Your task to perform on an android device: Search for Mexican restaurants on Maps Image 0: 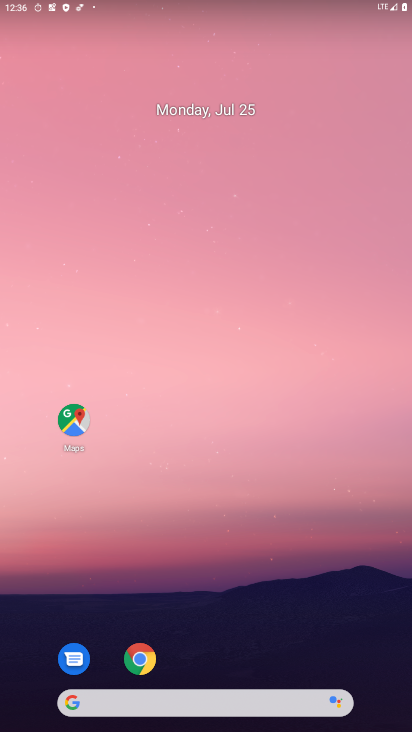
Step 0: click (77, 431)
Your task to perform on an android device: Search for Mexican restaurants on Maps Image 1: 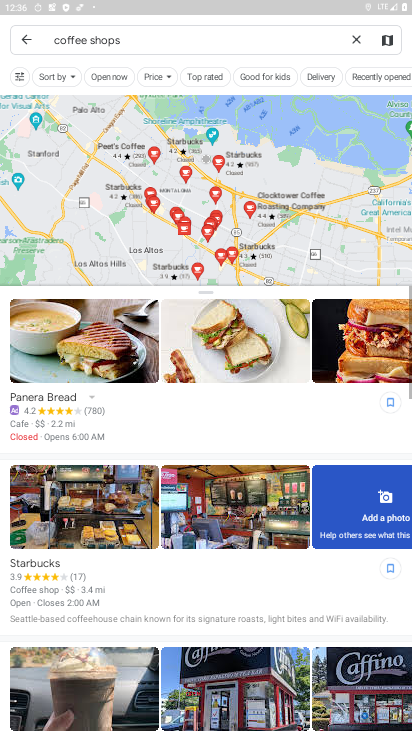
Step 1: click (20, 37)
Your task to perform on an android device: Search for Mexican restaurants on Maps Image 2: 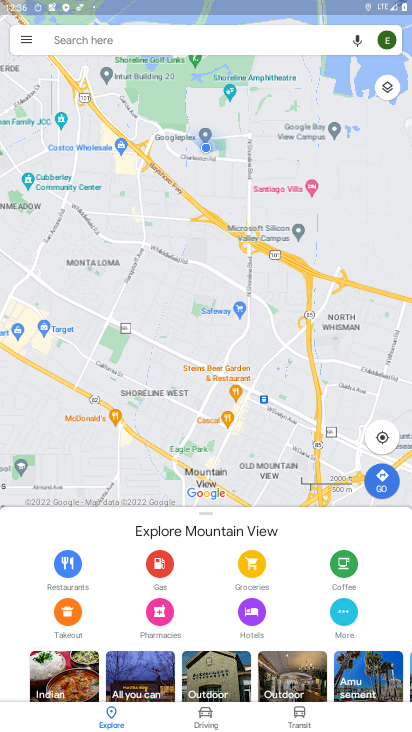
Step 2: click (58, 37)
Your task to perform on an android device: Search for Mexican restaurants on Maps Image 3: 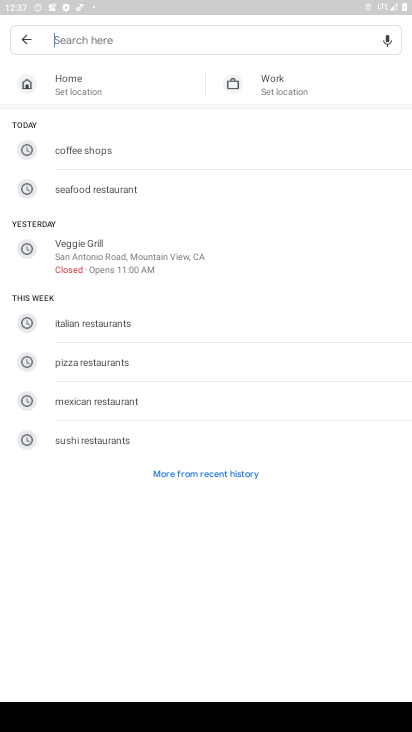
Step 3: type "Mexican restaurants"
Your task to perform on an android device: Search for Mexican restaurants on Maps Image 4: 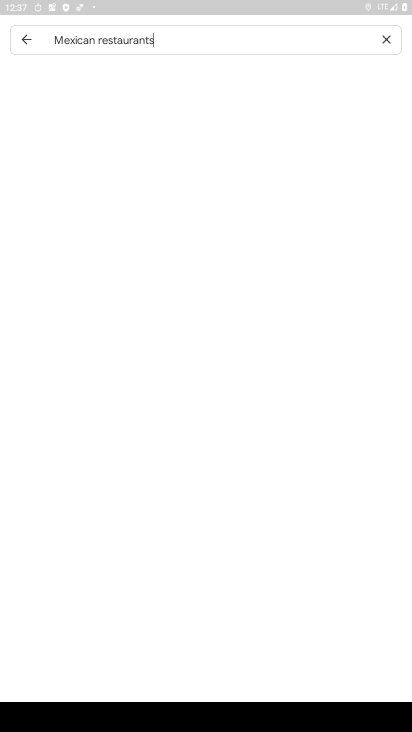
Step 4: type ""
Your task to perform on an android device: Search for Mexican restaurants on Maps Image 5: 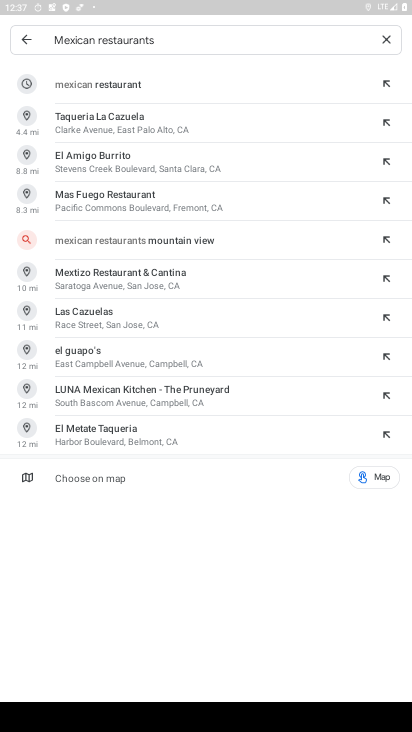
Step 5: task complete